Your task to perform on an android device: Open accessibility settings Image 0: 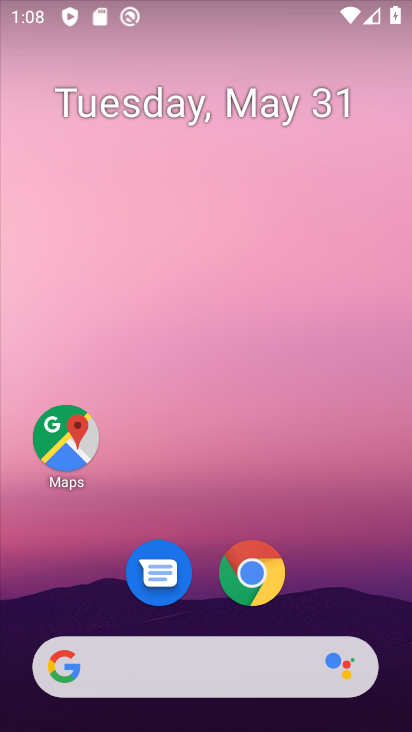
Step 0: drag from (377, 623) to (371, 185)
Your task to perform on an android device: Open accessibility settings Image 1: 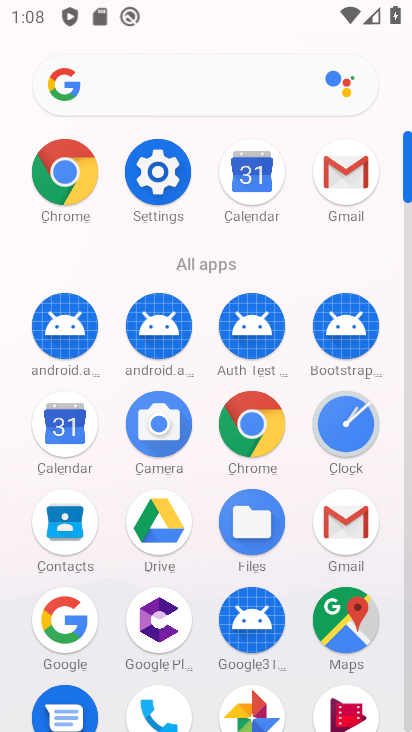
Step 1: click (149, 188)
Your task to perform on an android device: Open accessibility settings Image 2: 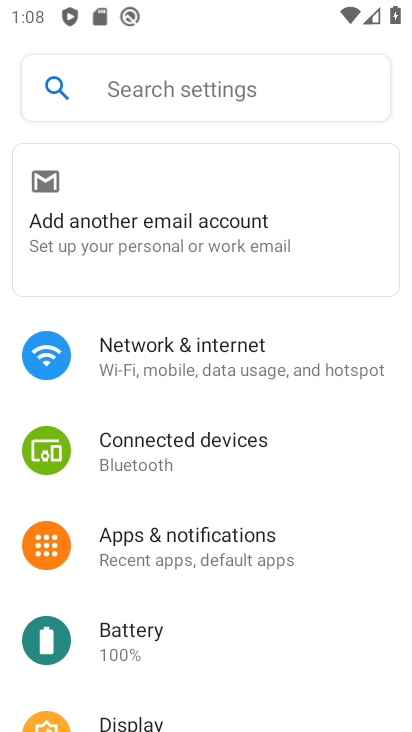
Step 2: drag from (339, 461) to (338, 366)
Your task to perform on an android device: Open accessibility settings Image 3: 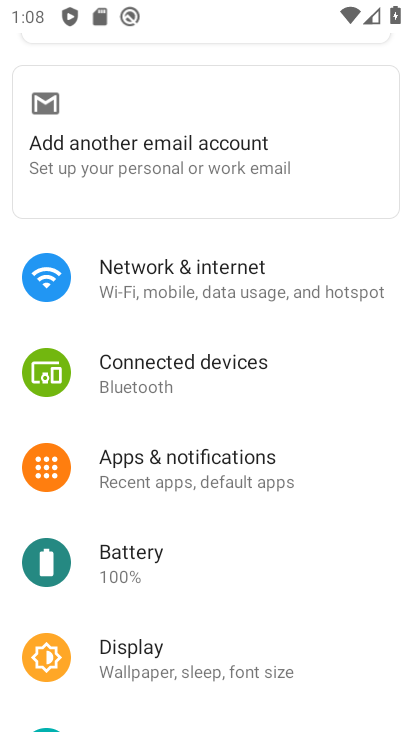
Step 3: drag from (342, 508) to (338, 394)
Your task to perform on an android device: Open accessibility settings Image 4: 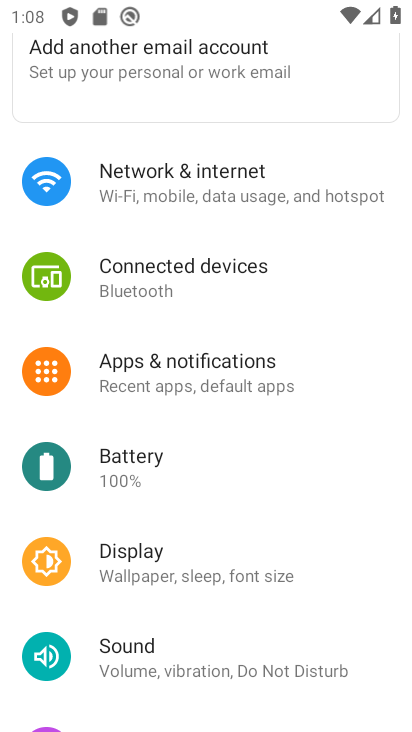
Step 4: drag from (332, 493) to (343, 345)
Your task to perform on an android device: Open accessibility settings Image 5: 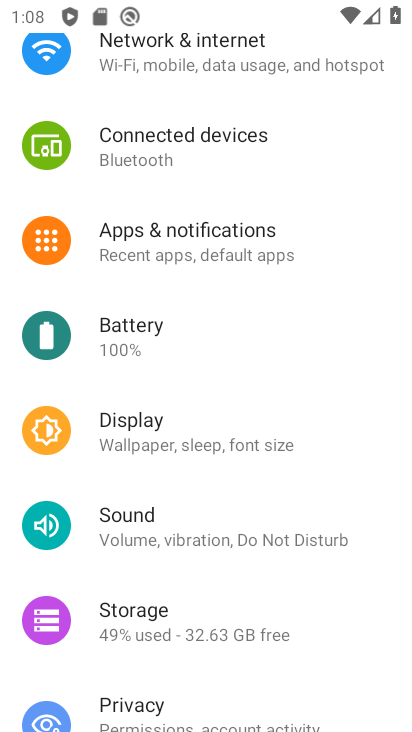
Step 5: drag from (370, 557) to (365, 422)
Your task to perform on an android device: Open accessibility settings Image 6: 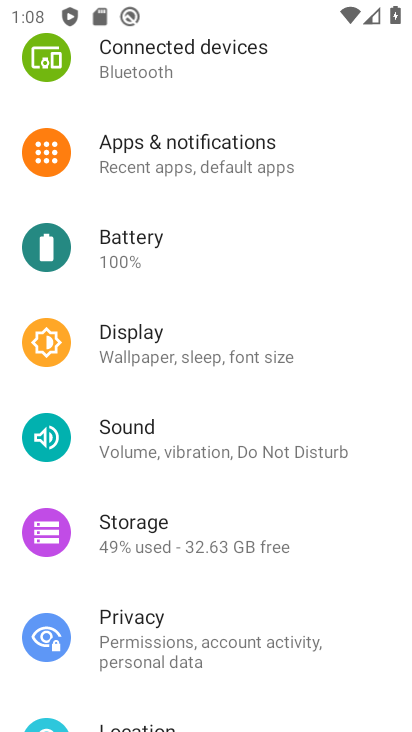
Step 6: drag from (361, 568) to (366, 432)
Your task to perform on an android device: Open accessibility settings Image 7: 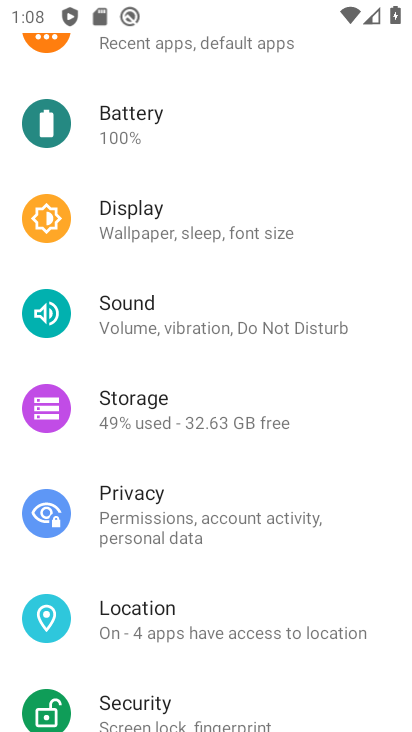
Step 7: drag from (347, 553) to (342, 433)
Your task to perform on an android device: Open accessibility settings Image 8: 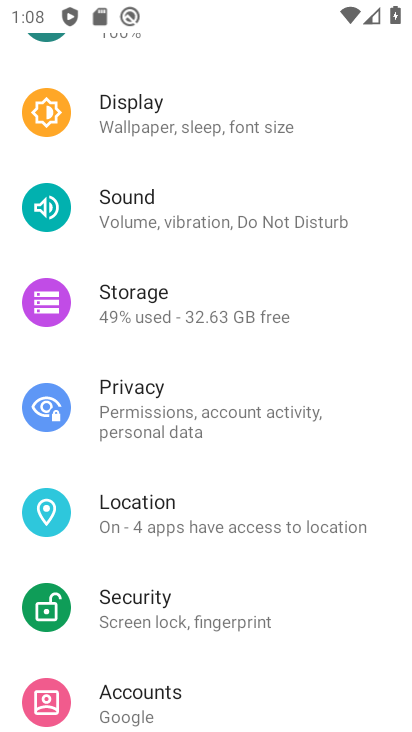
Step 8: drag from (339, 584) to (337, 460)
Your task to perform on an android device: Open accessibility settings Image 9: 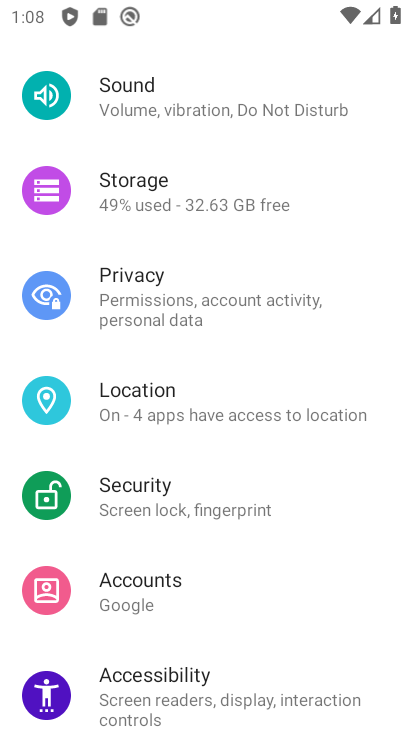
Step 9: drag from (337, 582) to (338, 476)
Your task to perform on an android device: Open accessibility settings Image 10: 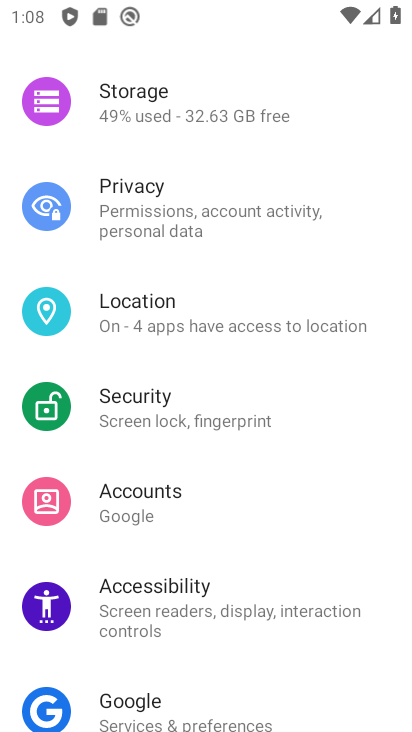
Step 10: drag from (335, 546) to (336, 455)
Your task to perform on an android device: Open accessibility settings Image 11: 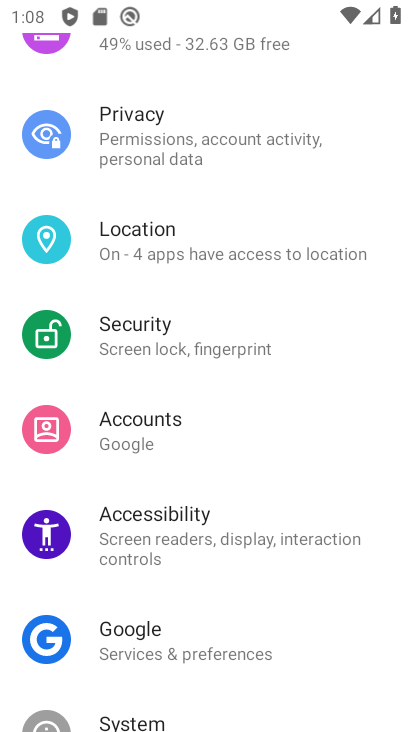
Step 11: drag from (329, 579) to (326, 466)
Your task to perform on an android device: Open accessibility settings Image 12: 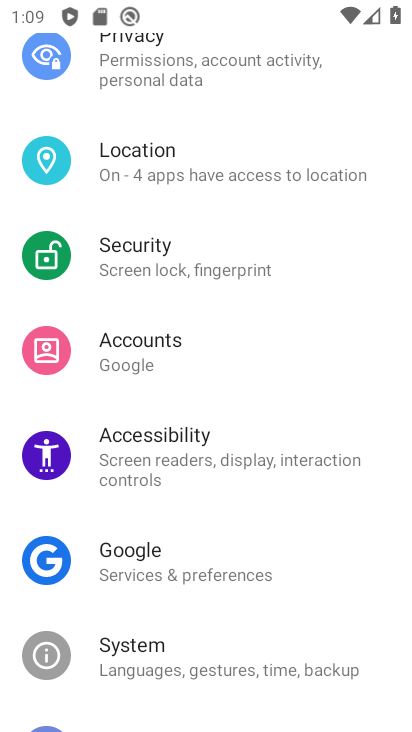
Step 12: drag from (336, 545) to (327, 453)
Your task to perform on an android device: Open accessibility settings Image 13: 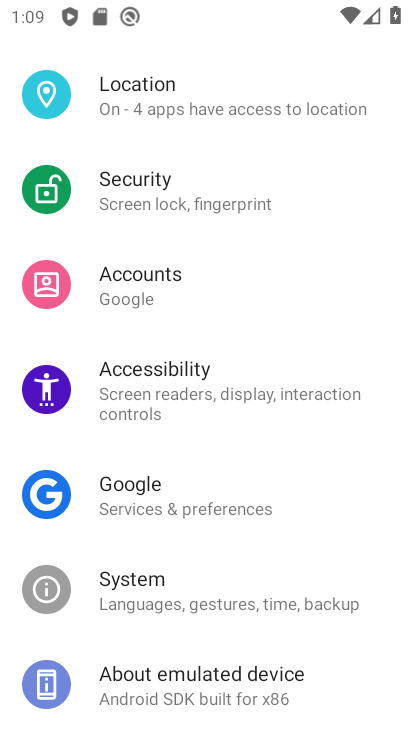
Step 13: click (267, 390)
Your task to perform on an android device: Open accessibility settings Image 14: 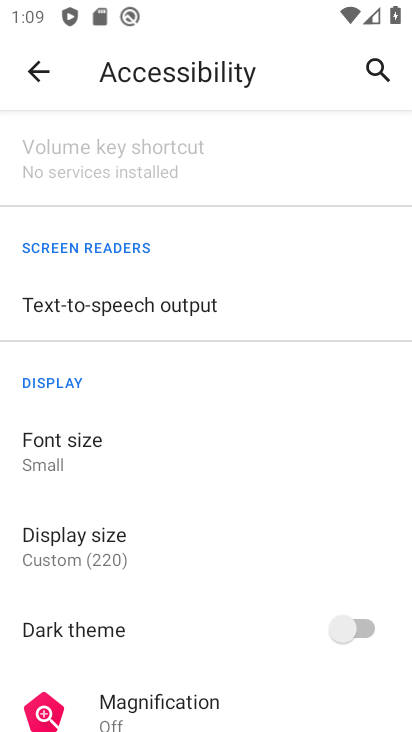
Step 14: task complete